Your task to perform on an android device: change your default location settings in chrome Image 0: 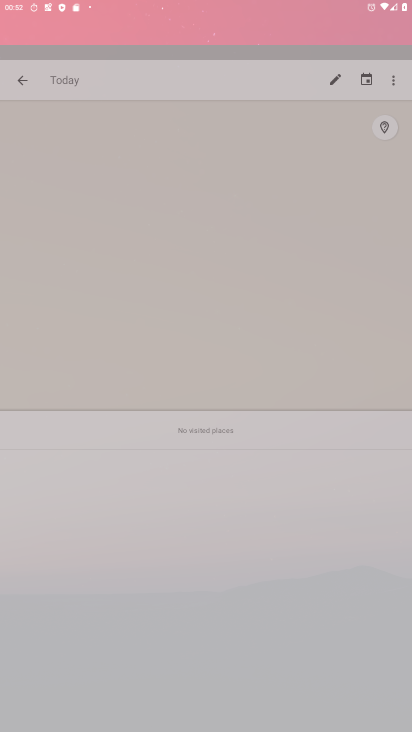
Step 0: click (185, 553)
Your task to perform on an android device: change your default location settings in chrome Image 1: 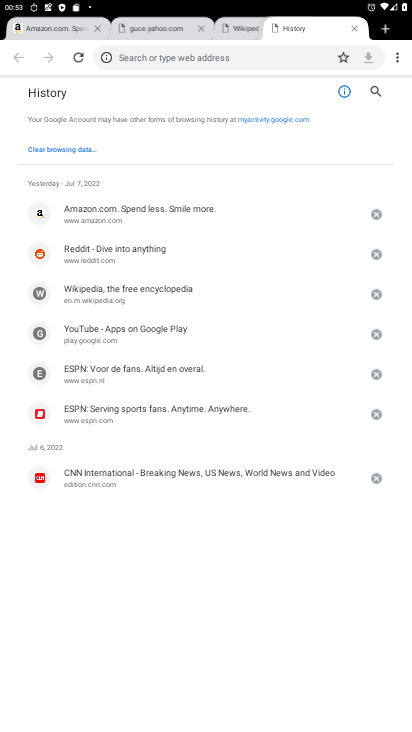
Step 1: click (400, 58)
Your task to perform on an android device: change your default location settings in chrome Image 2: 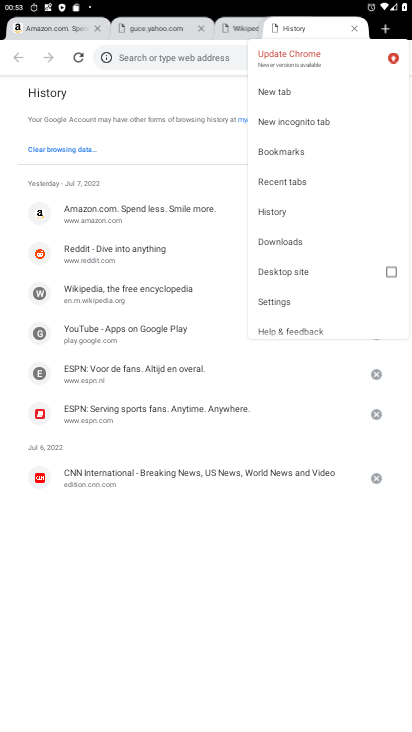
Step 2: click (288, 305)
Your task to perform on an android device: change your default location settings in chrome Image 3: 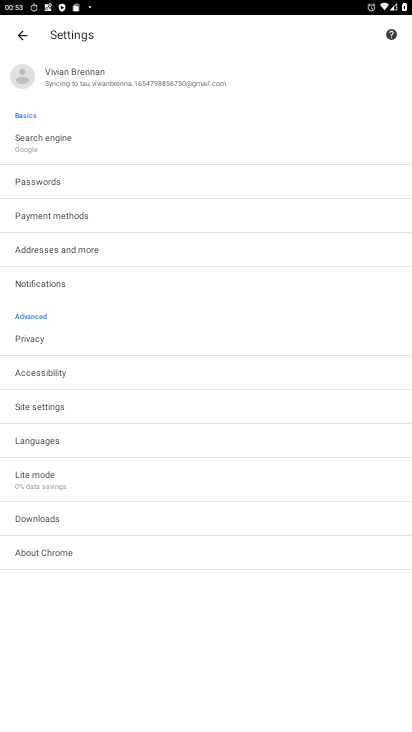
Step 3: click (75, 405)
Your task to perform on an android device: change your default location settings in chrome Image 4: 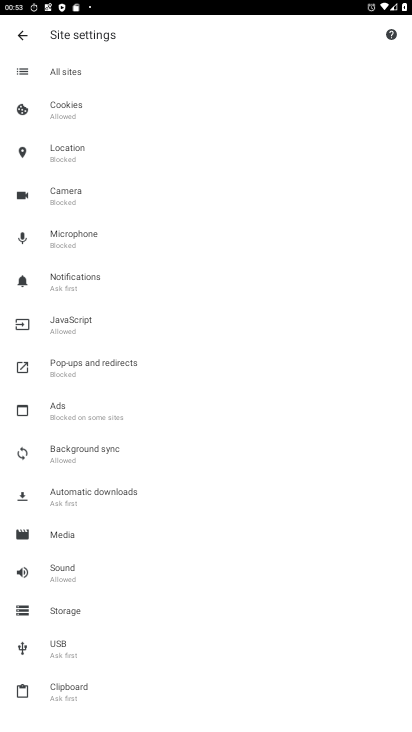
Step 4: click (109, 149)
Your task to perform on an android device: change your default location settings in chrome Image 5: 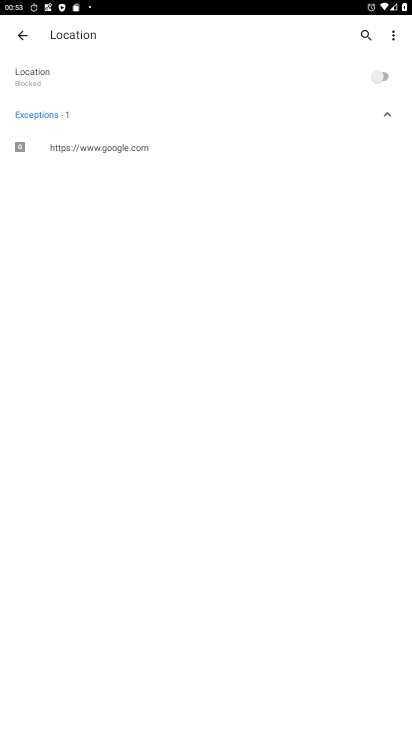
Step 5: task complete